Your task to perform on an android device: refresh tabs in the chrome app Image 0: 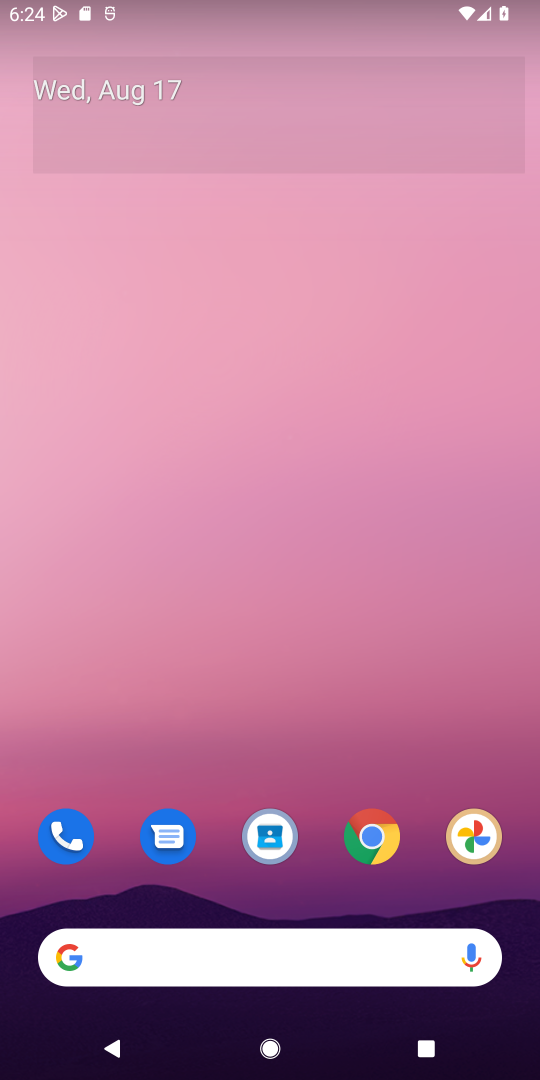
Step 0: drag from (190, 731) to (220, 112)
Your task to perform on an android device: refresh tabs in the chrome app Image 1: 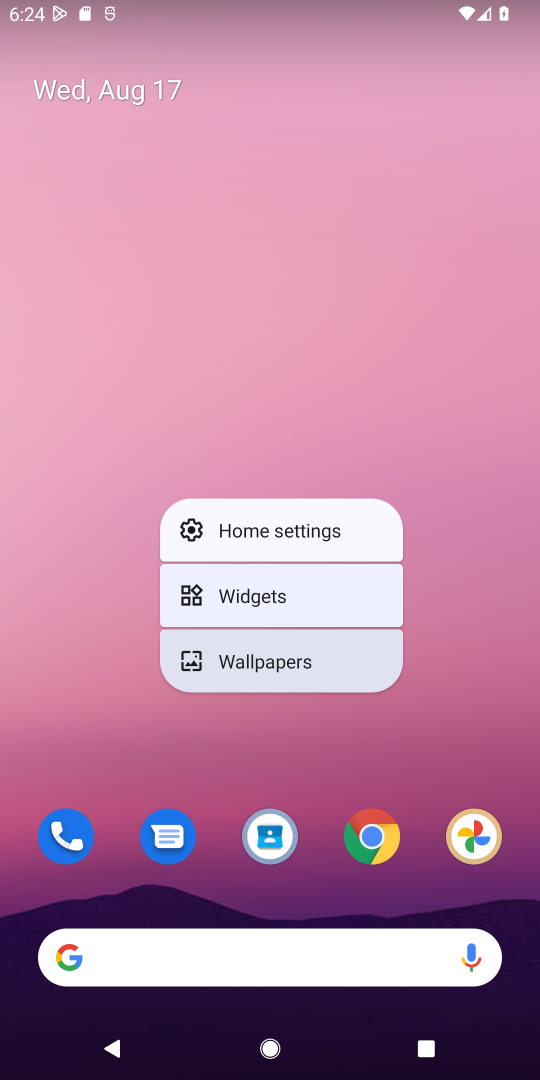
Step 1: click (90, 641)
Your task to perform on an android device: refresh tabs in the chrome app Image 2: 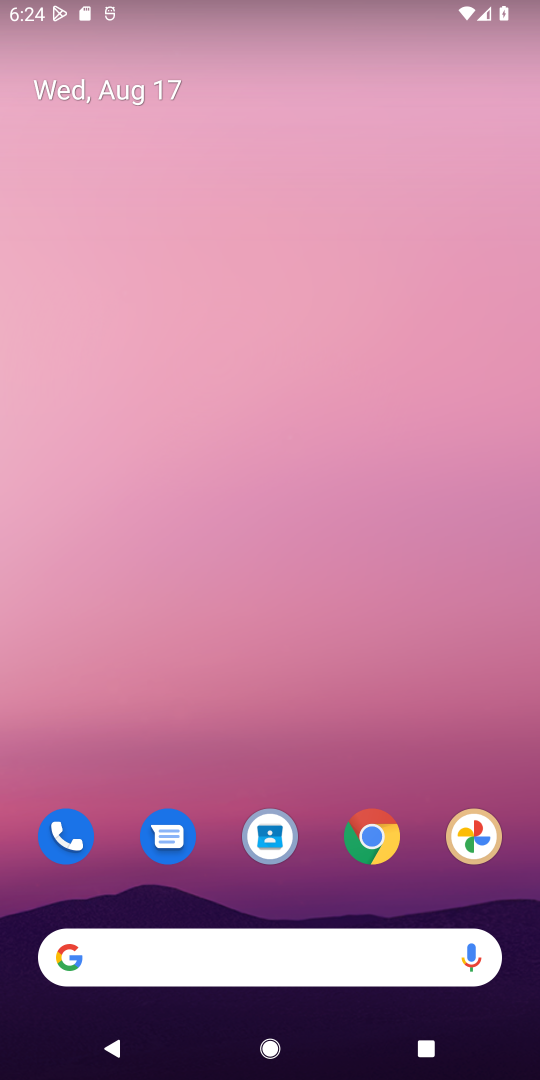
Step 2: click (90, 641)
Your task to perform on an android device: refresh tabs in the chrome app Image 3: 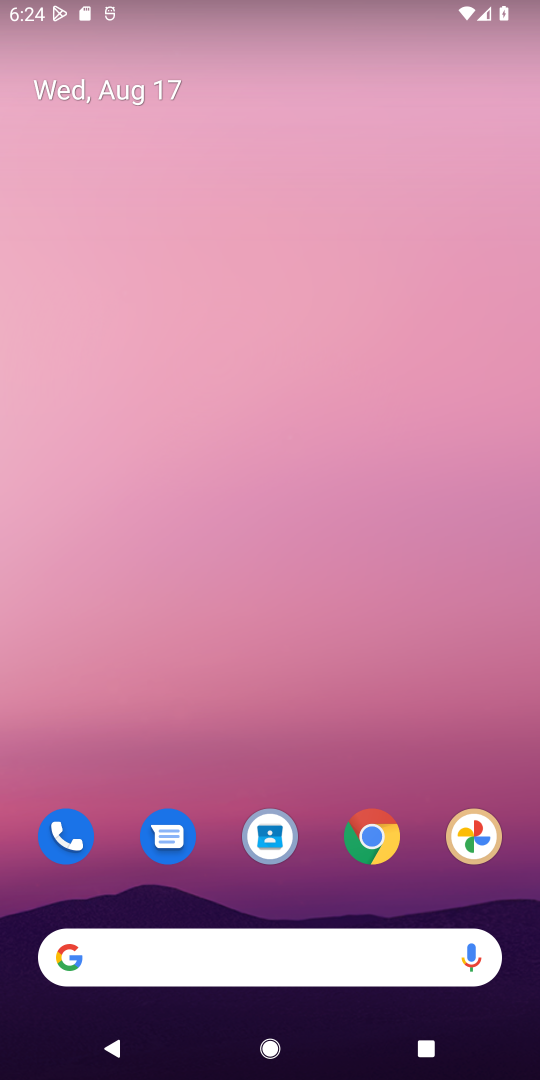
Step 3: task complete